Your task to perform on an android device: Go to network settings Image 0: 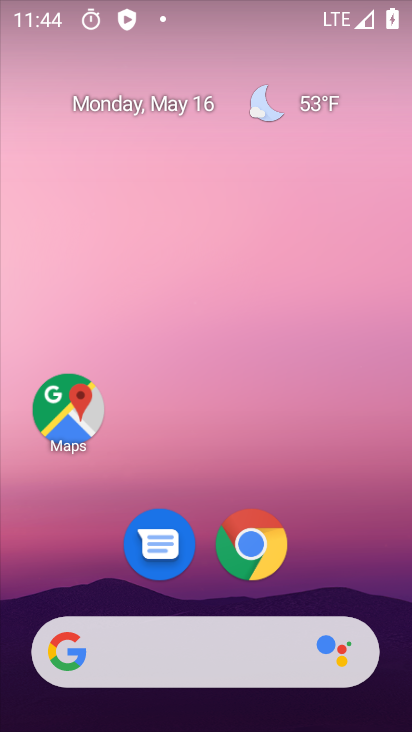
Step 0: drag from (362, 539) to (364, 173)
Your task to perform on an android device: Go to network settings Image 1: 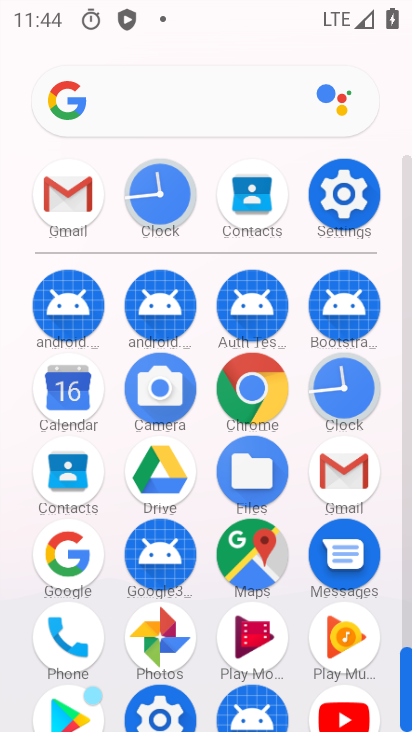
Step 1: click (354, 190)
Your task to perform on an android device: Go to network settings Image 2: 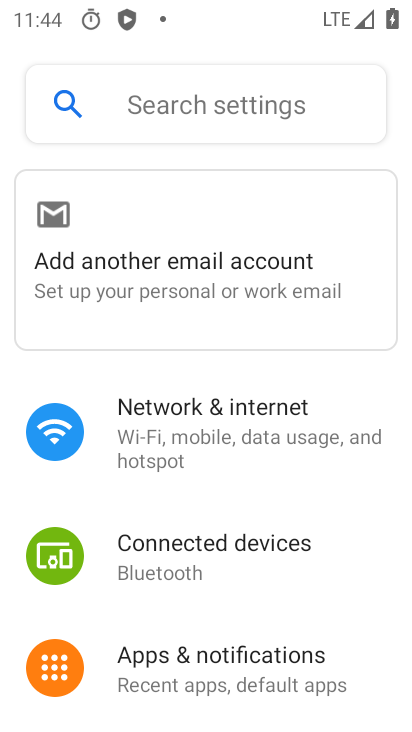
Step 2: click (194, 411)
Your task to perform on an android device: Go to network settings Image 3: 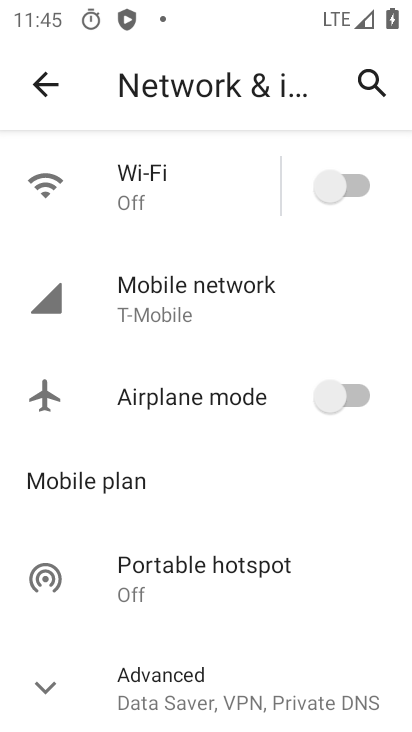
Step 3: task complete